Your task to perform on an android device: delete a single message in the gmail app Image 0: 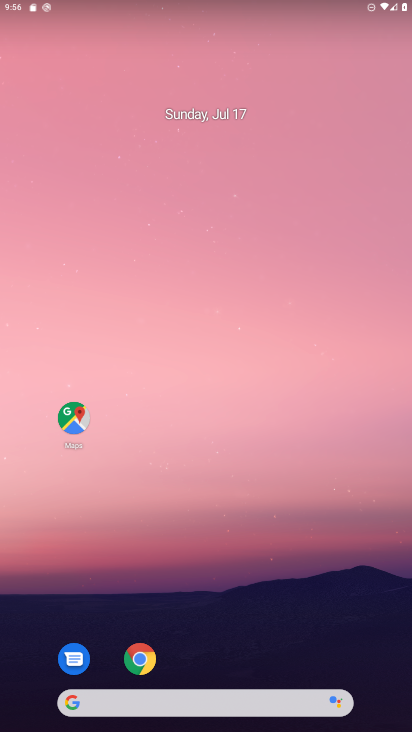
Step 0: drag from (260, 631) to (386, 28)
Your task to perform on an android device: delete a single message in the gmail app Image 1: 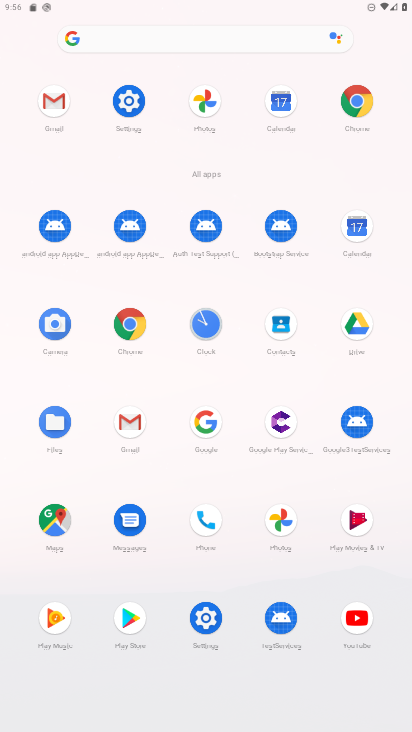
Step 1: click (119, 435)
Your task to perform on an android device: delete a single message in the gmail app Image 2: 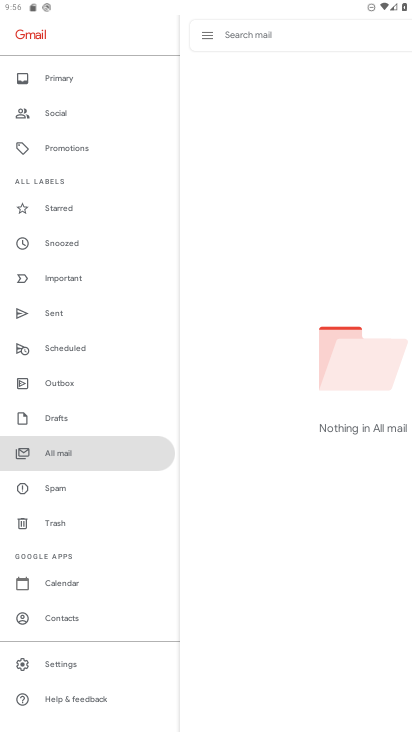
Step 2: click (46, 449)
Your task to perform on an android device: delete a single message in the gmail app Image 3: 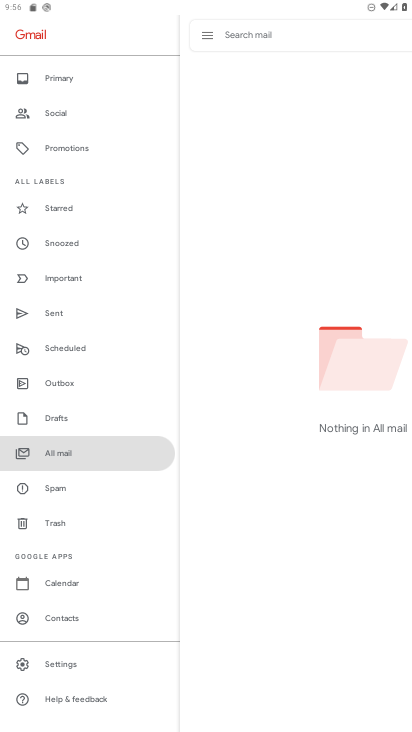
Step 3: task complete